Your task to perform on an android device: star an email in the gmail app Image 0: 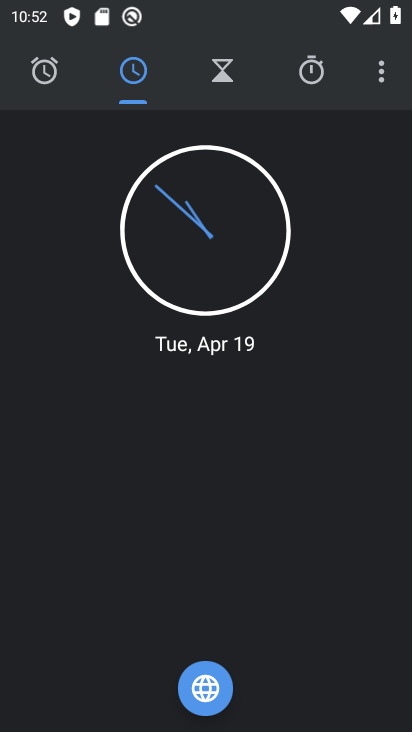
Step 0: press home button
Your task to perform on an android device: star an email in the gmail app Image 1: 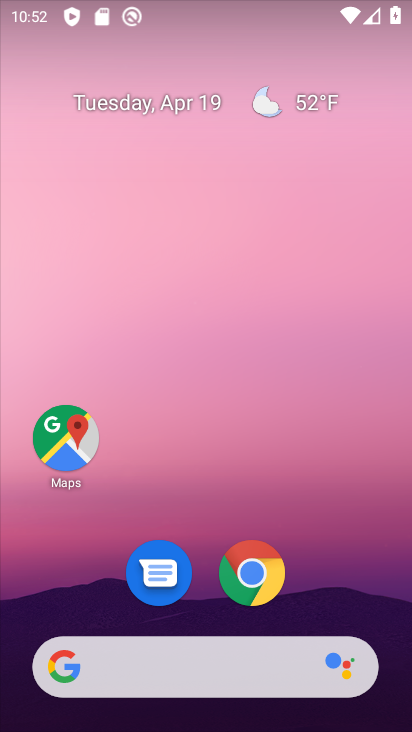
Step 1: drag from (227, 720) to (181, 150)
Your task to perform on an android device: star an email in the gmail app Image 2: 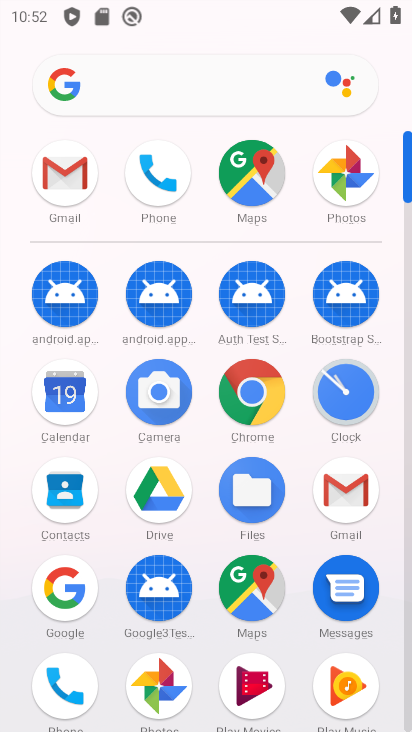
Step 2: click (343, 485)
Your task to perform on an android device: star an email in the gmail app Image 3: 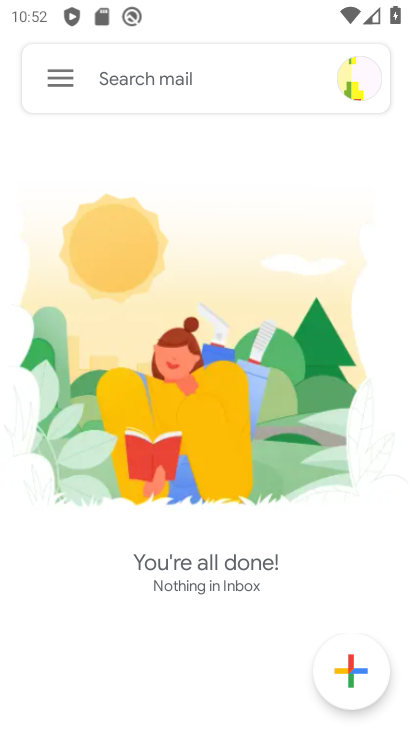
Step 3: task complete